Your task to perform on an android device: Open Google Chrome and open the bookmarks view Image 0: 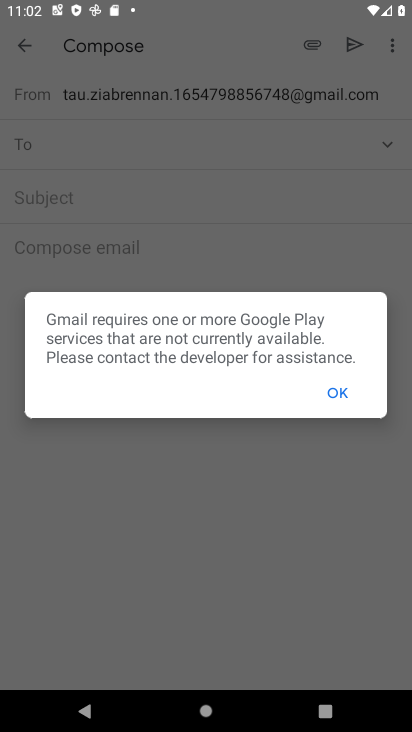
Step 0: click (338, 391)
Your task to perform on an android device: Open Google Chrome and open the bookmarks view Image 1: 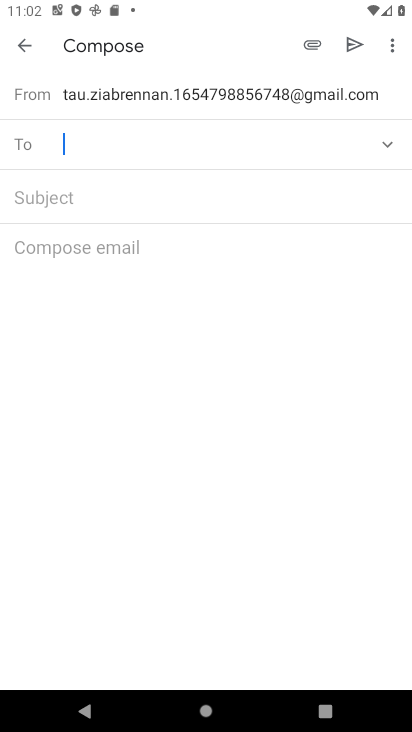
Step 1: press home button
Your task to perform on an android device: Open Google Chrome and open the bookmarks view Image 2: 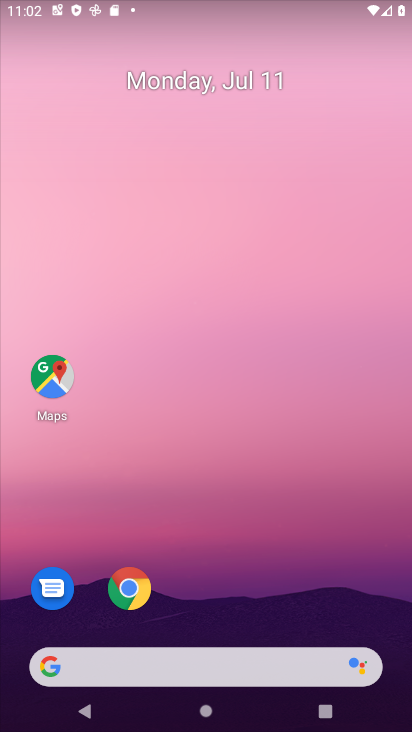
Step 2: click (136, 593)
Your task to perform on an android device: Open Google Chrome and open the bookmarks view Image 3: 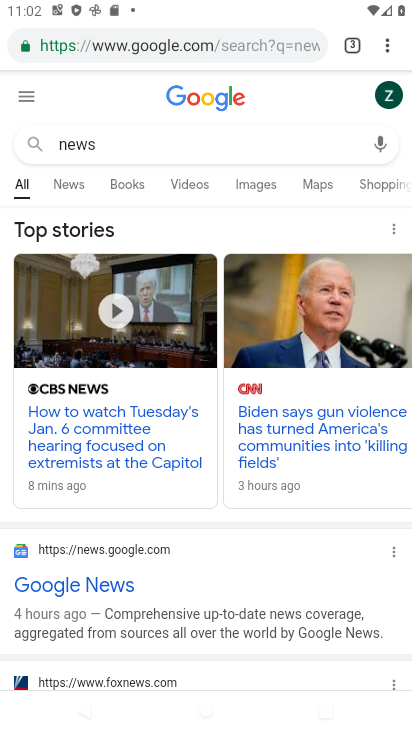
Step 3: click (389, 39)
Your task to perform on an android device: Open Google Chrome and open the bookmarks view Image 4: 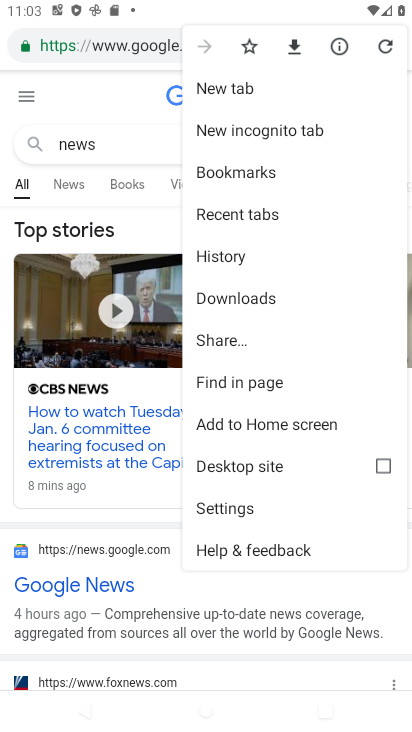
Step 4: click (273, 160)
Your task to perform on an android device: Open Google Chrome and open the bookmarks view Image 5: 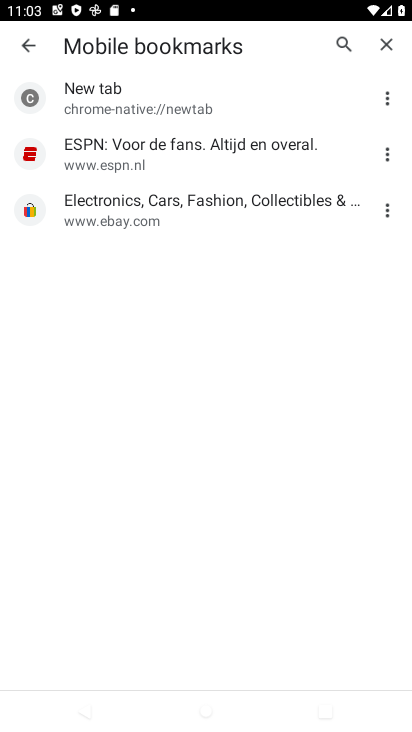
Step 5: task complete